Your task to perform on an android device: What's the weather? Image 0: 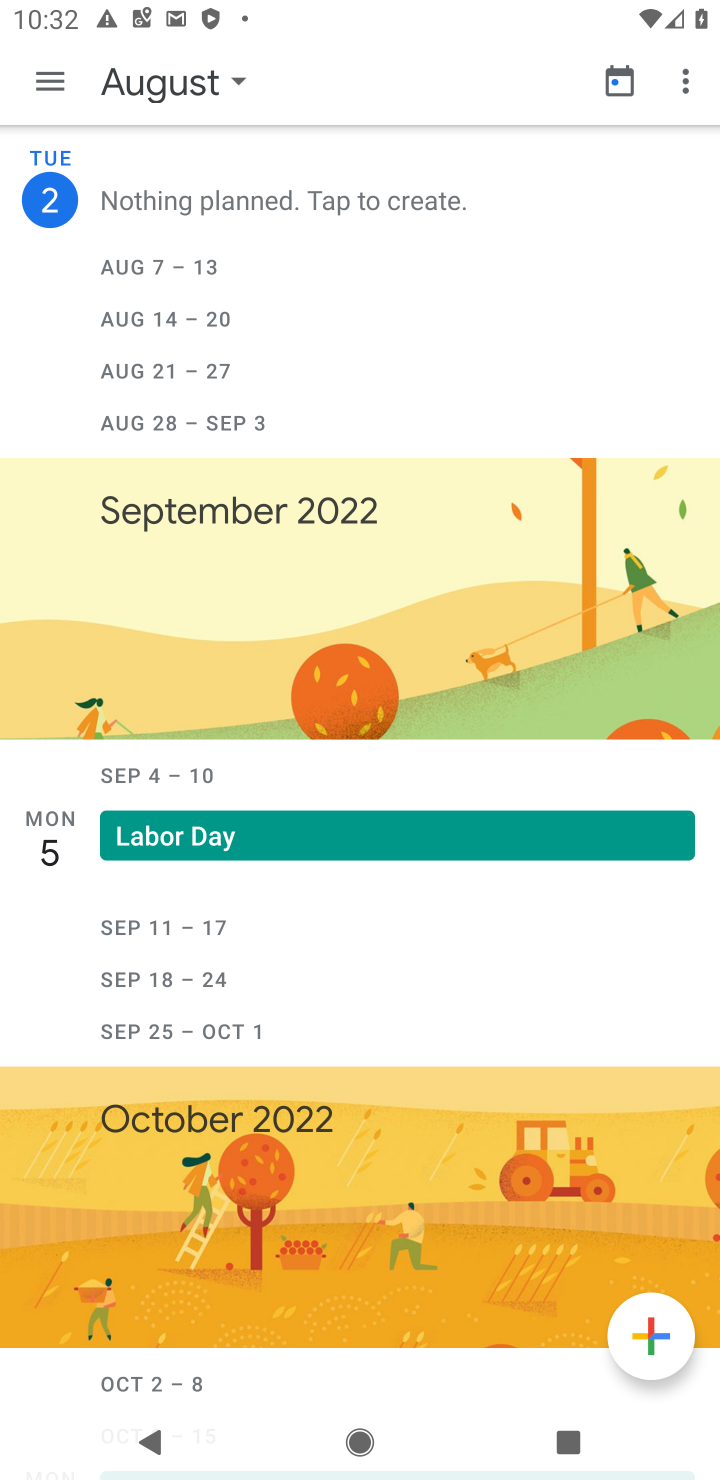
Step 0: press home button
Your task to perform on an android device: What's the weather? Image 1: 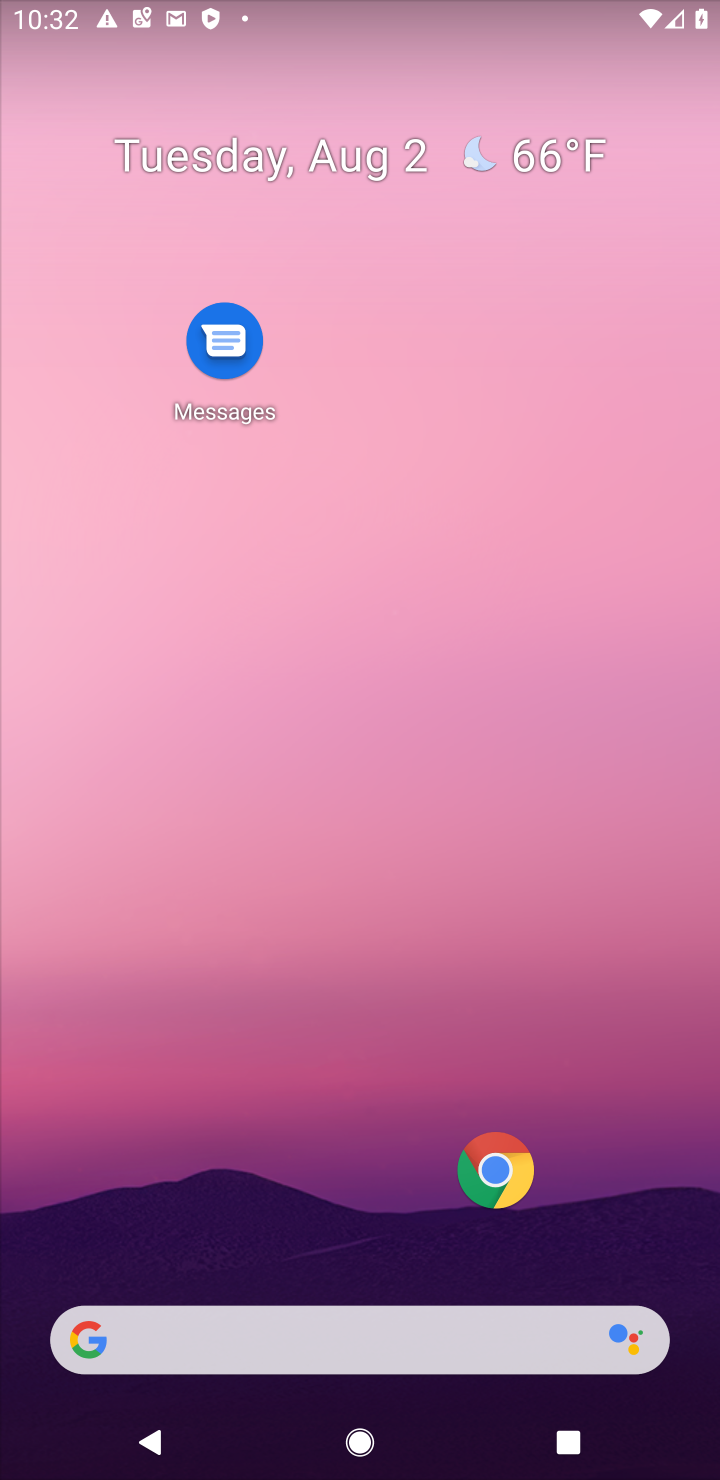
Step 1: drag from (388, 1031) to (565, 86)
Your task to perform on an android device: What's the weather? Image 2: 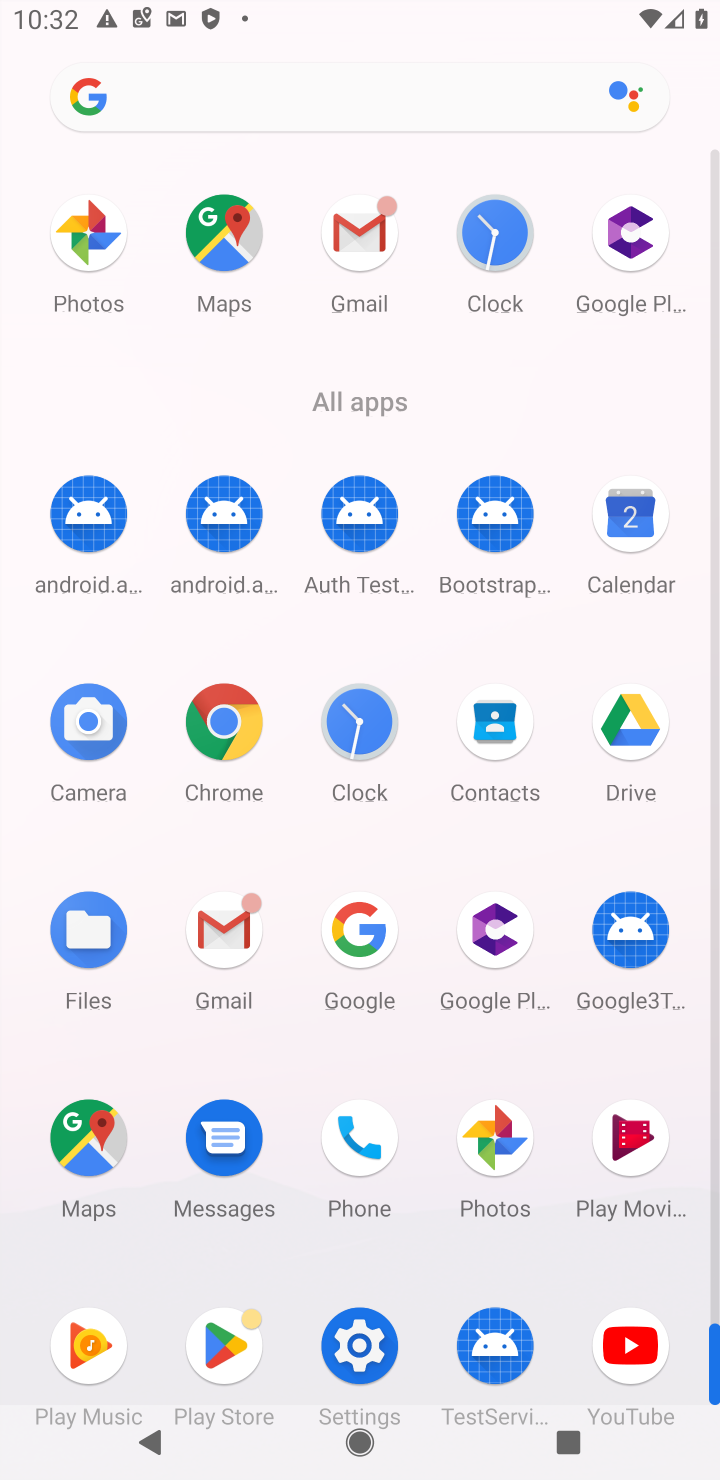
Step 2: click (260, 104)
Your task to perform on an android device: What's the weather? Image 3: 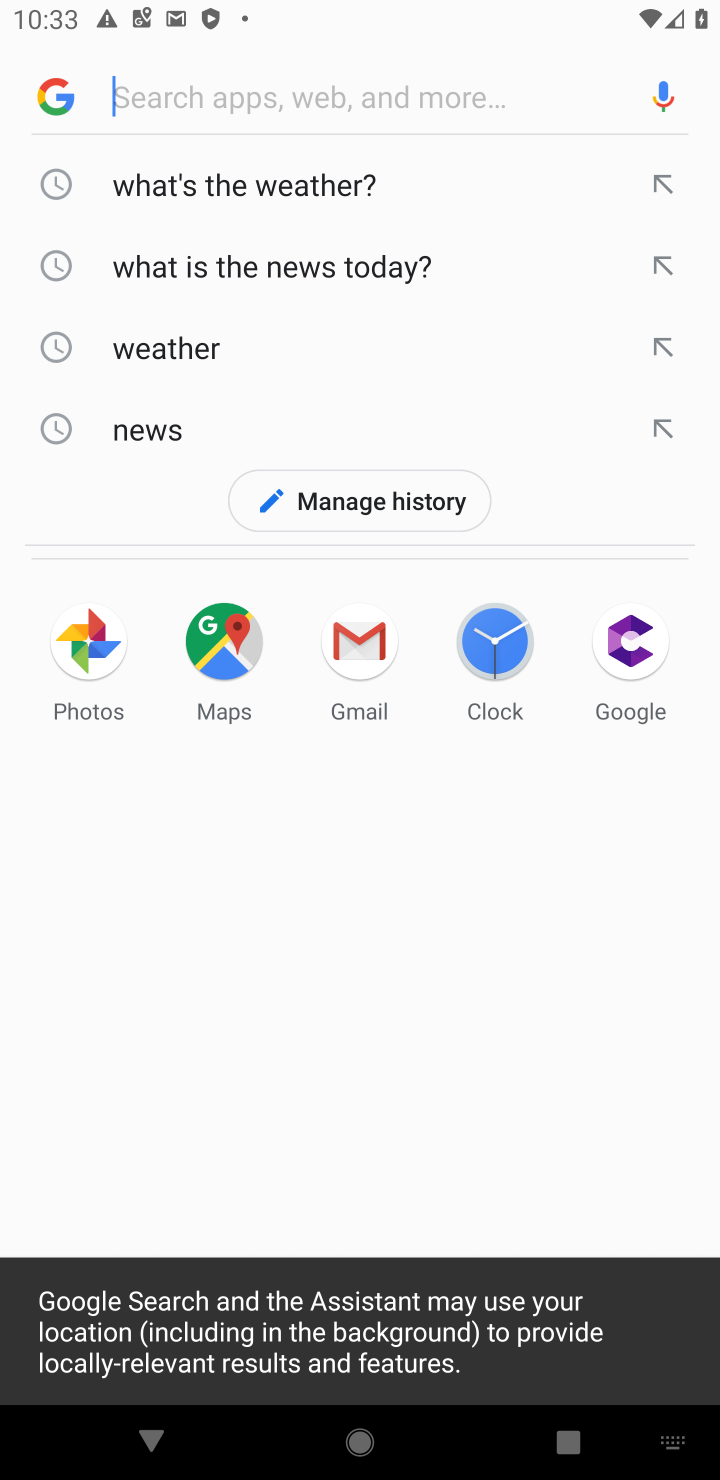
Step 3: click (198, 338)
Your task to perform on an android device: What's the weather? Image 4: 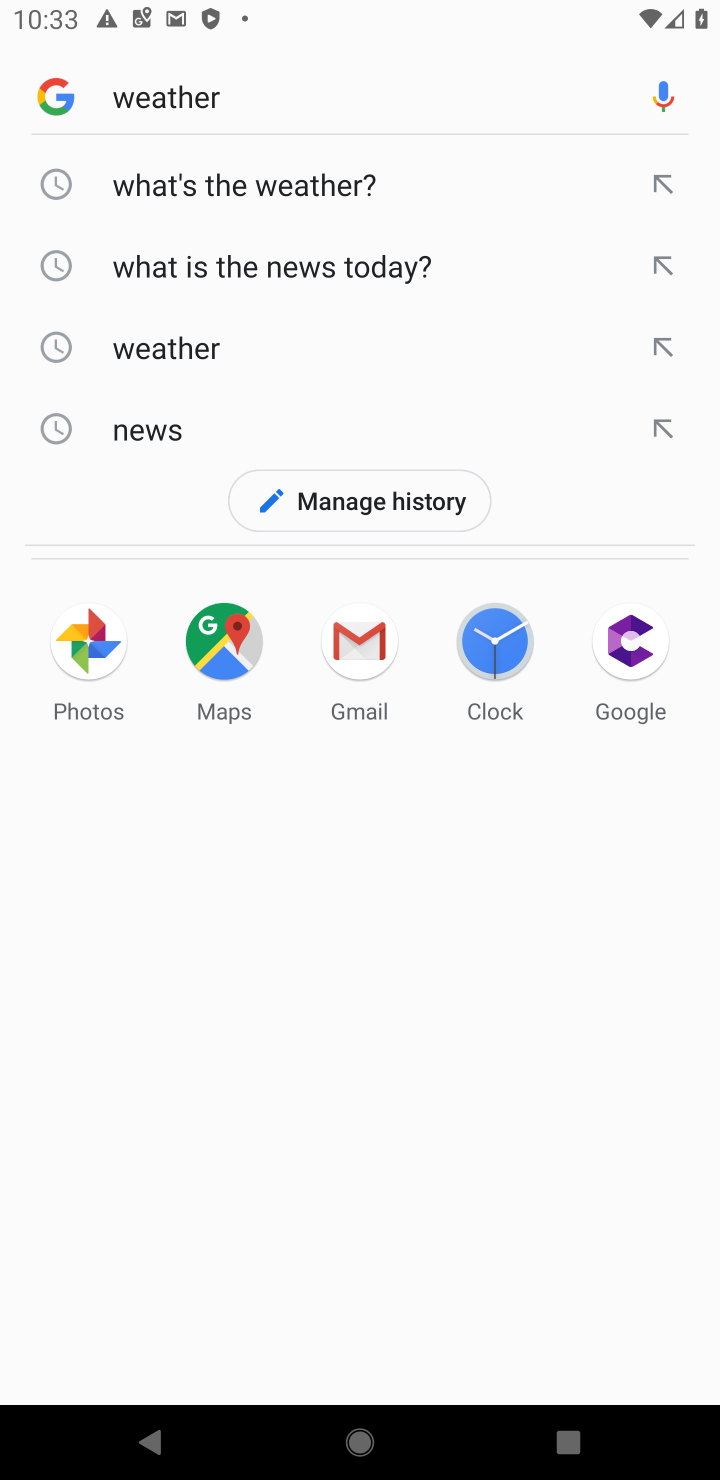
Step 4: click (184, 343)
Your task to perform on an android device: What's the weather? Image 5: 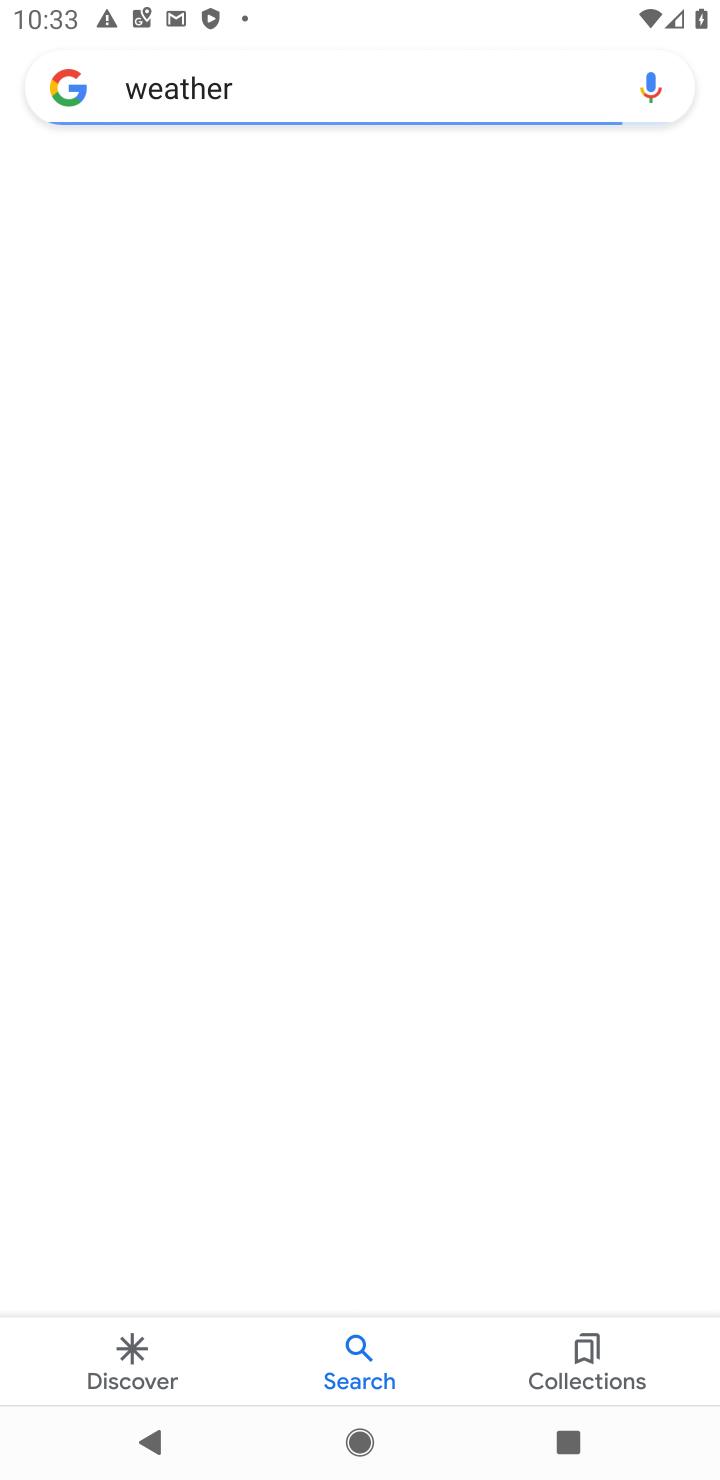
Step 5: task complete